Your task to perform on an android device: read, delete, or share a saved page in the chrome app Image 0: 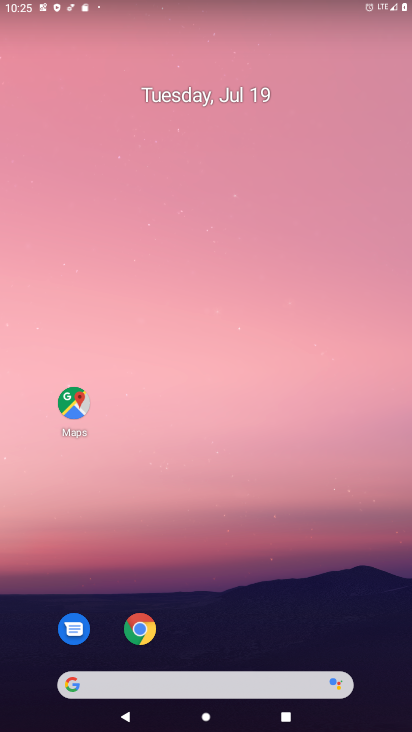
Step 0: click (137, 636)
Your task to perform on an android device: read, delete, or share a saved page in the chrome app Image 1: 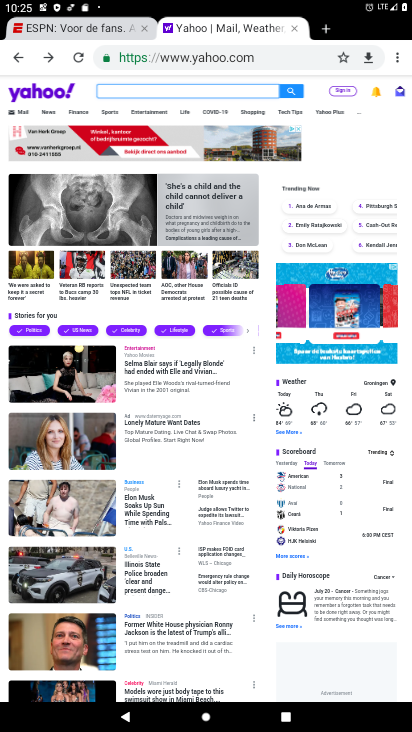
Step 1: click (397, 57)
Your task to perform on an android device: read, delete, or share a saved page in the chrome app Image 2: 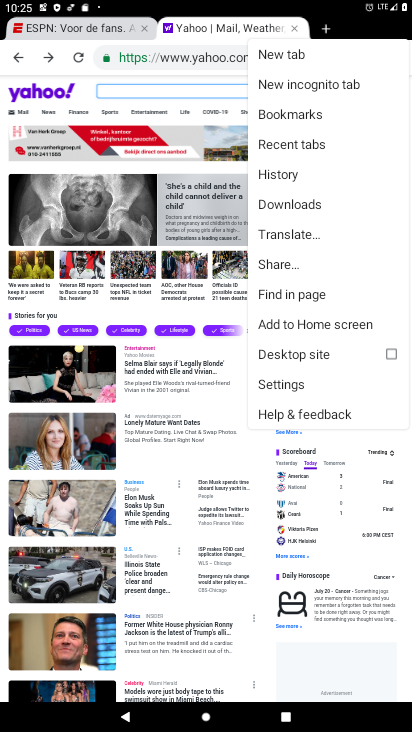
Step 2: click (304, 206)
Your task to perform on an android device: read, delete, or share a saved page in the chrome app Image 3: 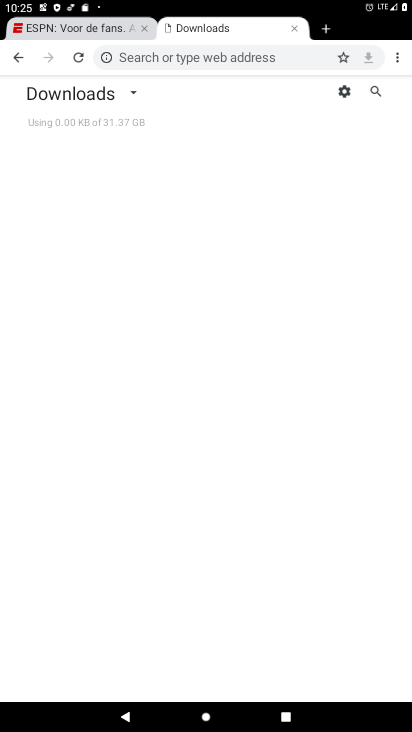
Step 3: task complete